Your task to perform on an android device: Go to Yahoo.com Image 0: 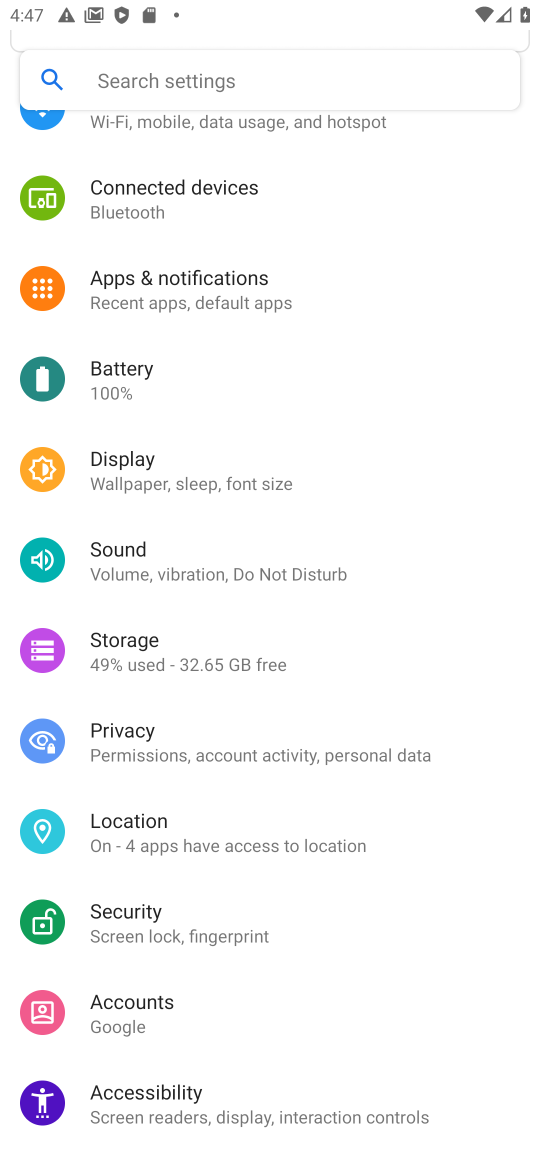
Step 0: press home button
Your task to perform on an android device: Go to Yahoo.com Image 1: 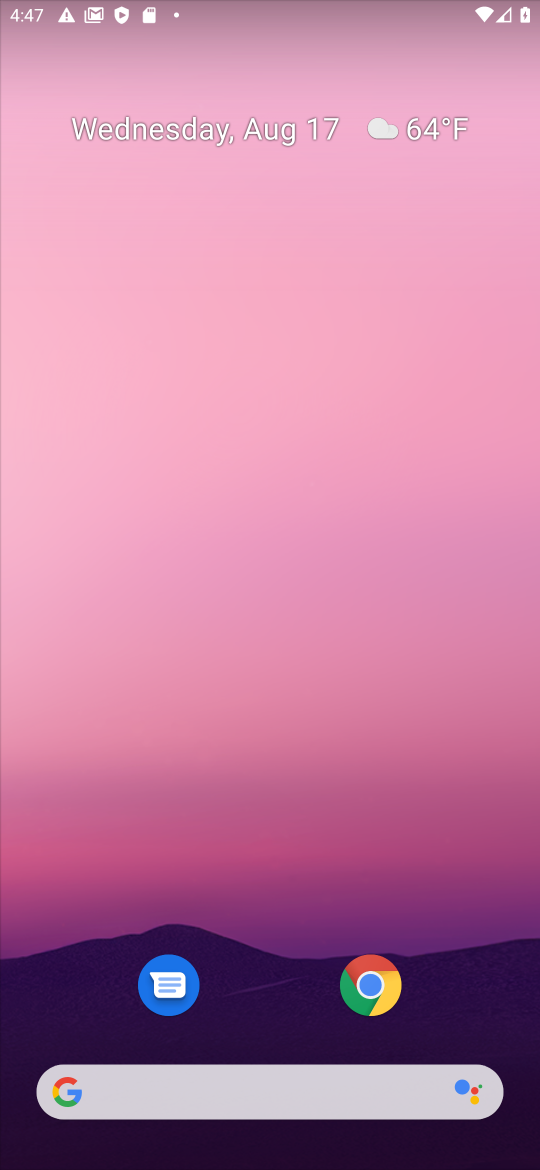
Step 1: click (371, 989)
Your task to perform on an android device: Go to Yahoo.com Image 2: 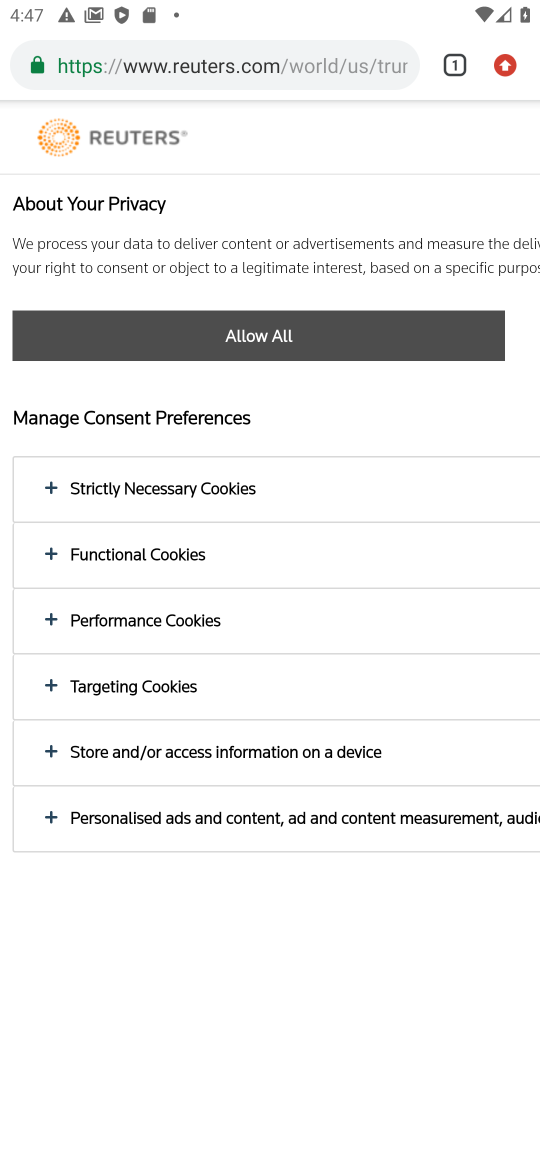
Step 2: click (364, 67)
Your task to perform on an android device: Go to Yahoo.com Image 3: 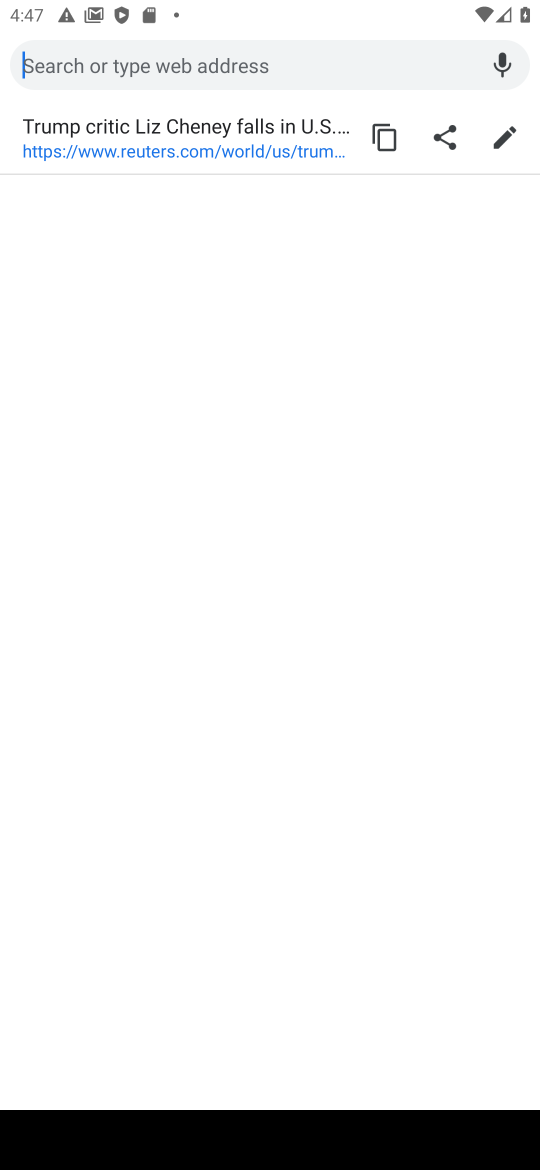
Step 3: click (359, 62)
Your task to perform on an android device: Go to Yahoo.com Image 4: 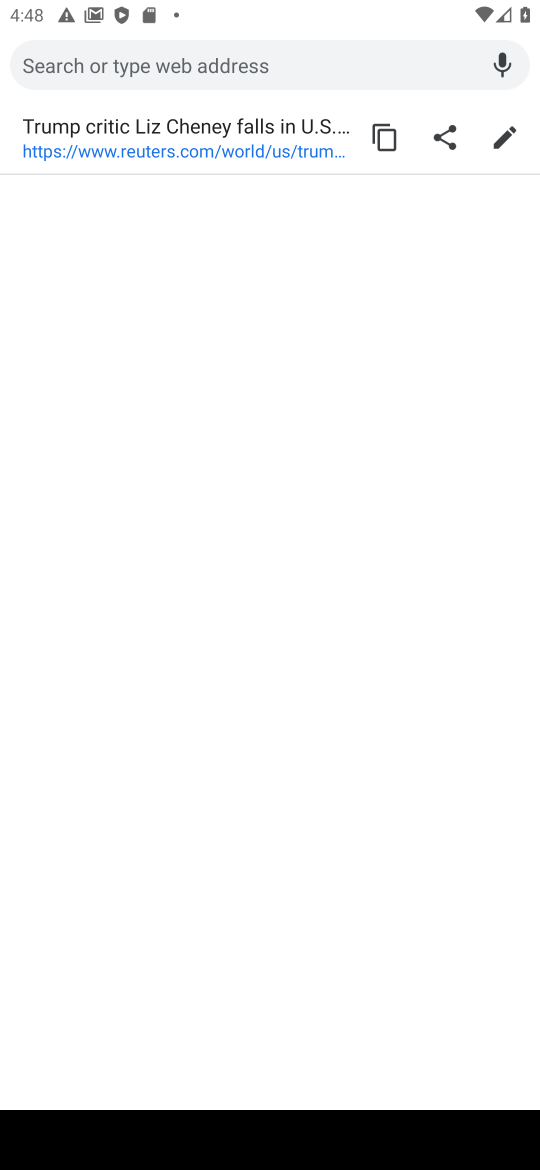
Step 4: type "Yahoo.com"
Your task to perform on an android device: Go to Yahoo.com Image 5: 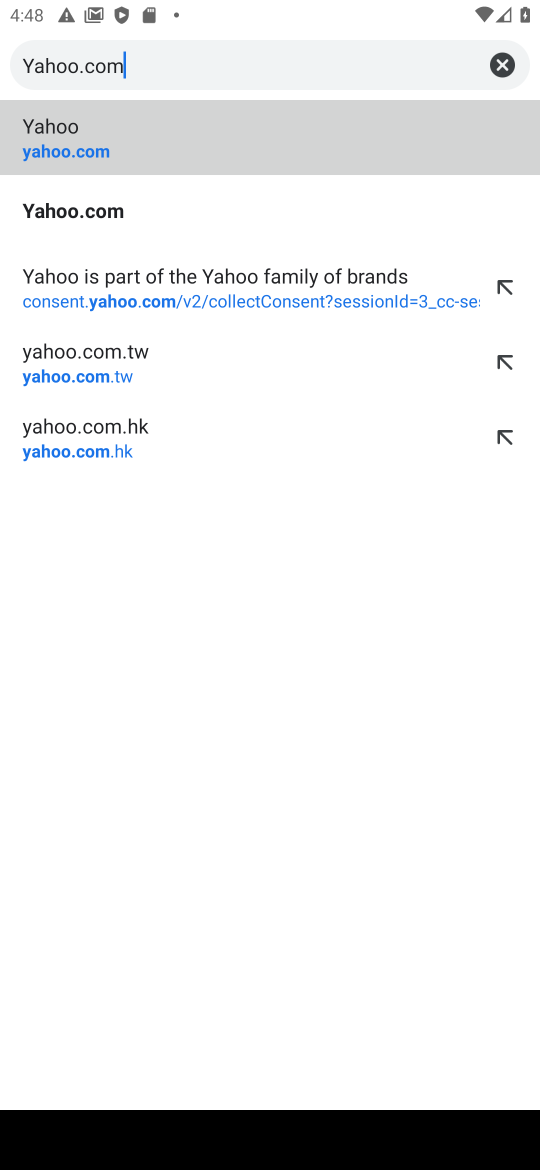
Step 5: click (111, 203)
Your task to perform on an android device: Go to Yahoo.com Image 6: 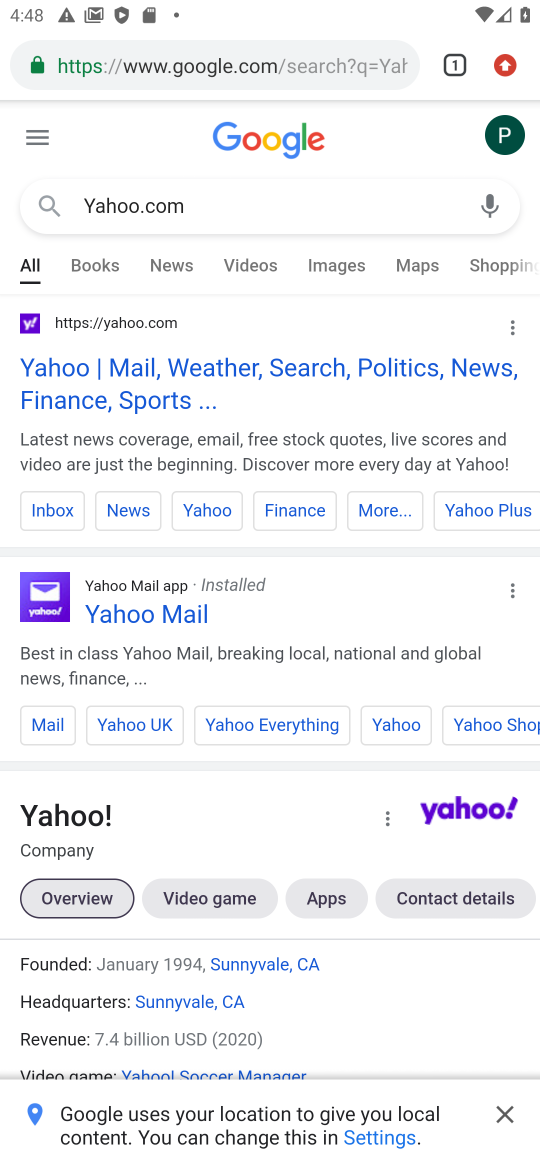
Step 6: click (77, 329)
Your task to perform on an android device: Go to Yahoo.com Image 7: 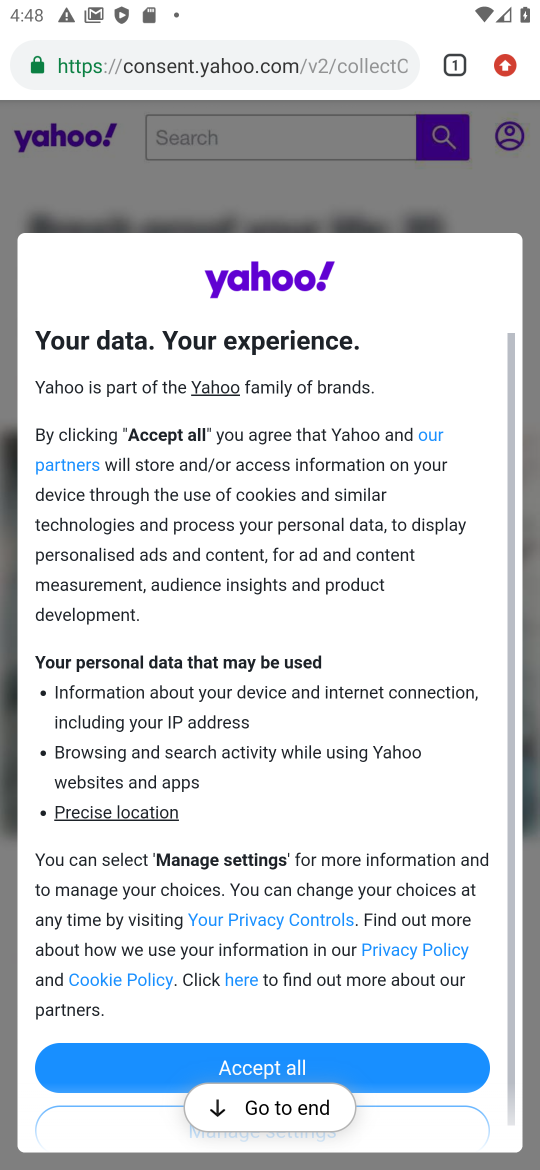
Step 7: click (257, 1115)
Your task to perform on an android device: Go to Yahoo.com Image 8: 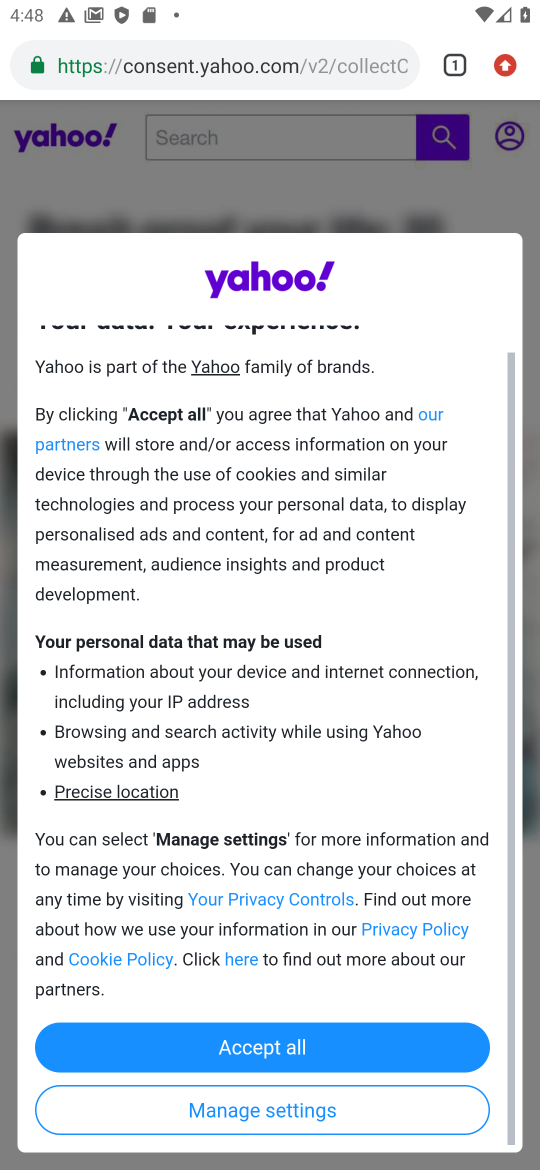
Step 8: click (248, 1042)
Your task to perform on an android device: Go to Yahoo.com Image 9: 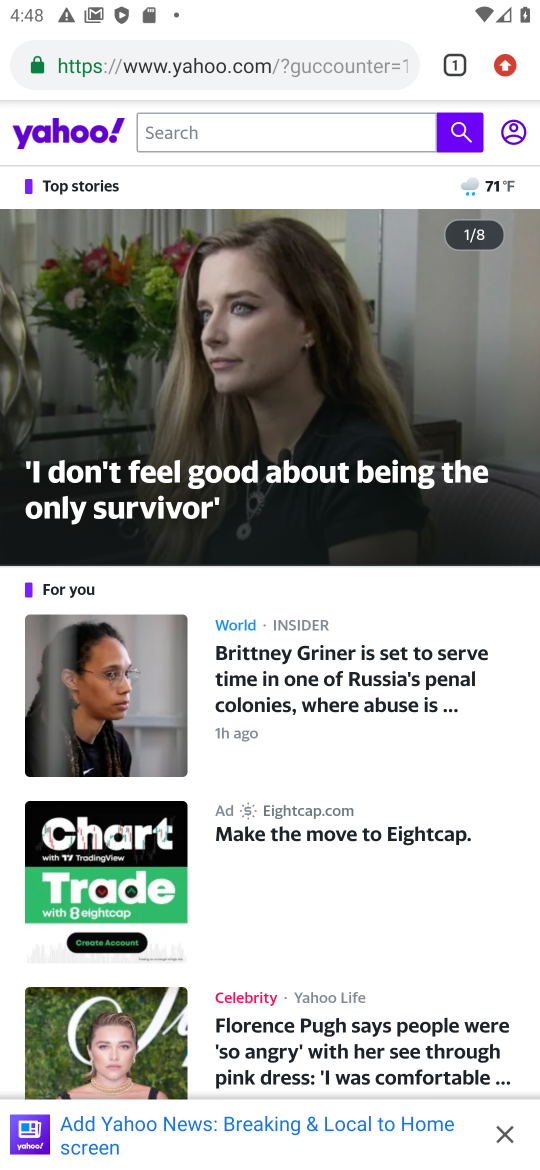
Step 9: task complete